Your task to perform on an android device: turn on sleep mode Image 0: 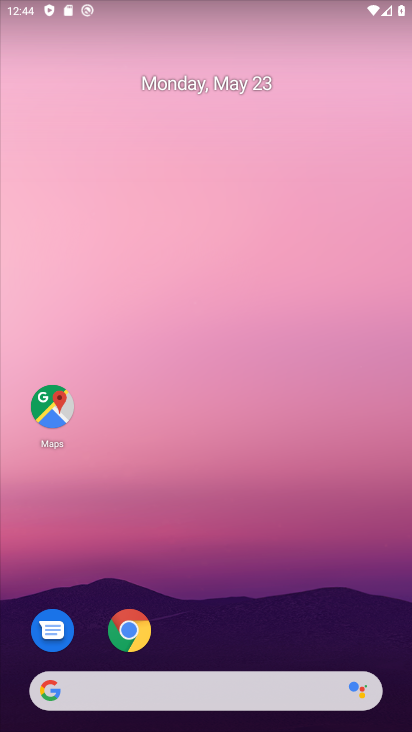
Step 0: drag from (366, 589) to (372, 70)
Your task to perform on an android device: turn on sleep mode Image 1: 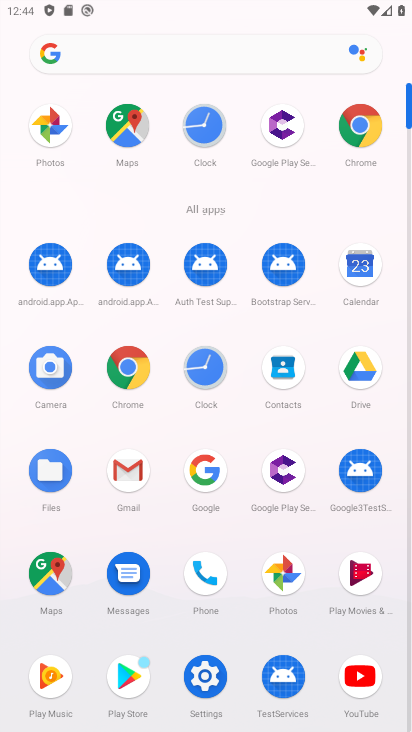
Step 1: click (207, 666)
Your task to perform on an android device: turn on sleep mode Image 2: 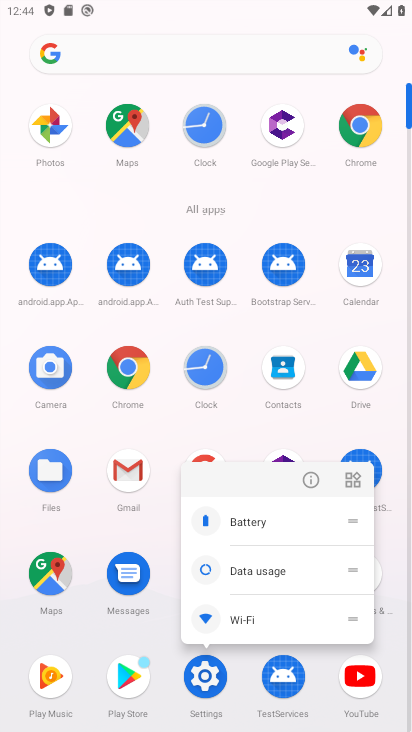
Step 2: click (201, 683)
Your task to perform on an android device: turn on sleep mode Image 3: 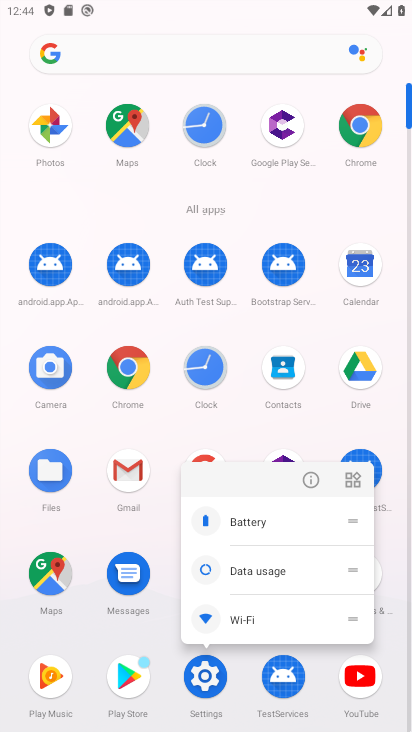
Step 3: click (200, 683)
Your task to perform on an android device: turn on sleep mode Image 4: 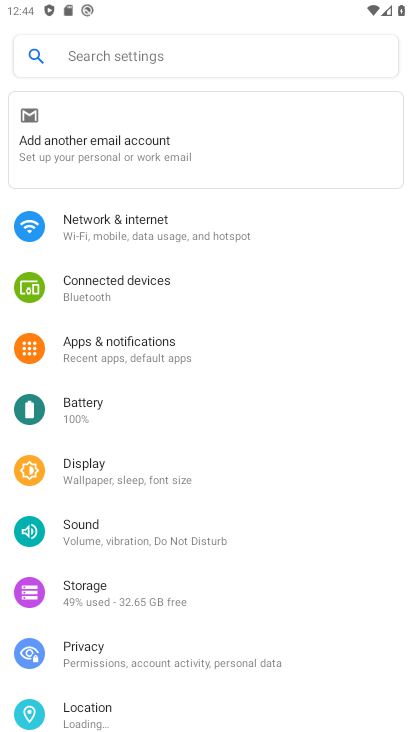
Step 4: click (148, 54)
Your task to perform on an android device: turn on sleep mode Image 5: 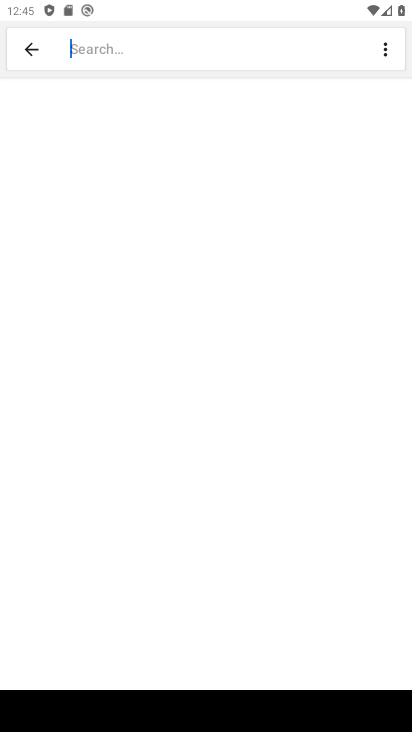
Step 5: type "sleep mode"
Your task to perform on an android device: turn on sleep mode Image 6: 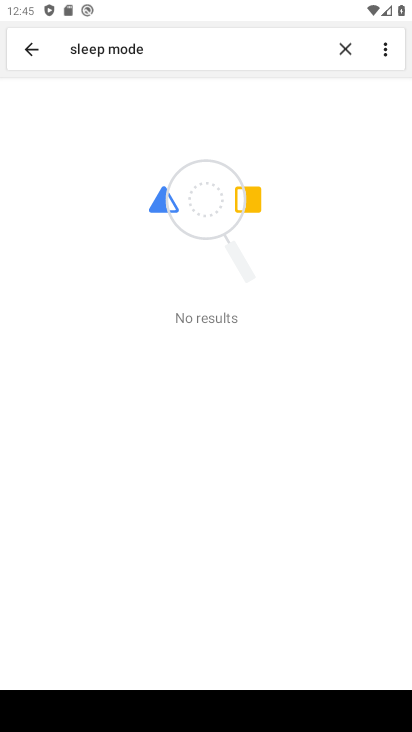
Step 6: task complete